Your task to perform on an android device: move an email to a new category in the gmail app Image 0: 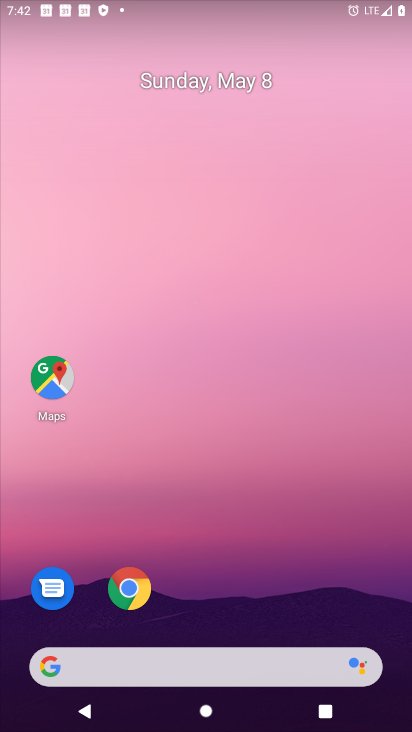
Step 0: drag from (201, 645) to (313, 229)
Your task to perform on an android device: move an email to a new category in the gmail app Image 1: 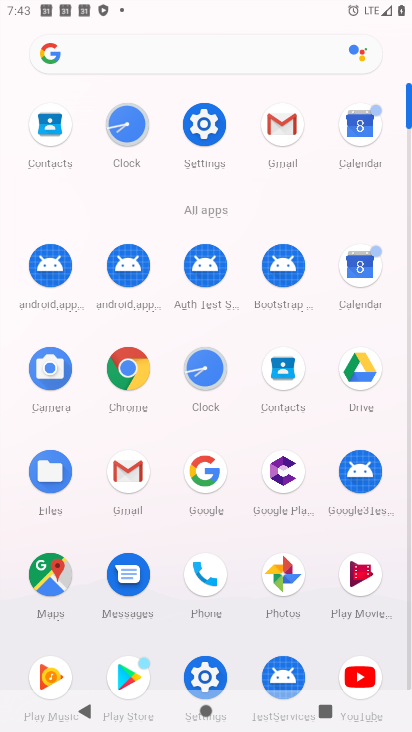
Step 1: click (288, 127)
Your task to perform on an android device: move an email to a new category in the gmail app Image 2: 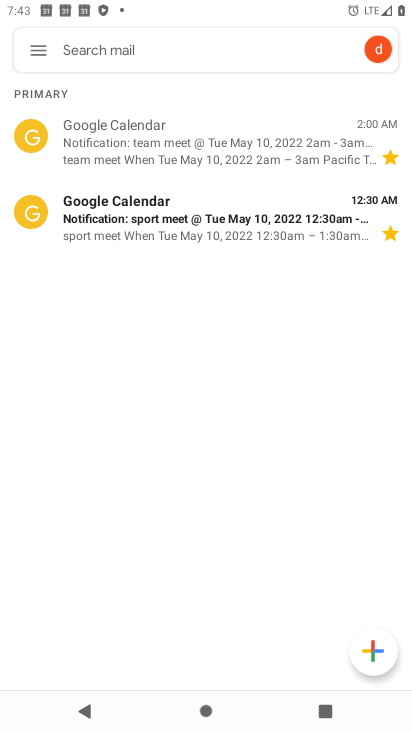
Step 2: click (39, 133)
Your task to perform on an android device: move an email to a new category in the gmail app Image 3: 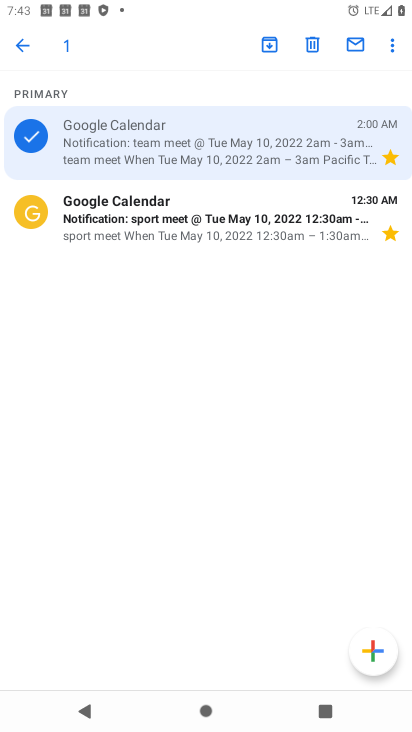
Step 3: click (395, 45)
Your task to perform on an android device: move an email to a new category in the gmail app Image 4: 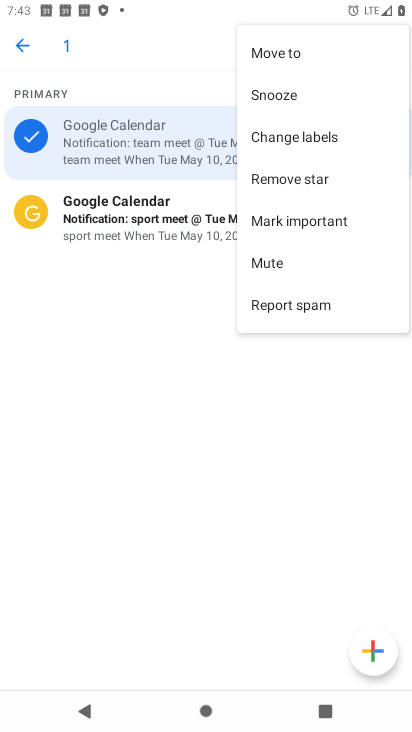
Step 4: click (288, 52)
Your task to perform on an android device: move an email to a new category in the gmail app Image 5: 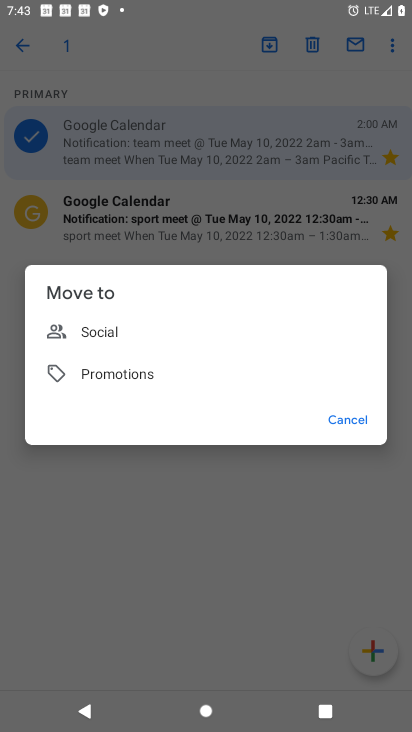
Step 5: click (103, 331)
Your task to perform on an android device: move an email to a new category in the gmail app Image 6: 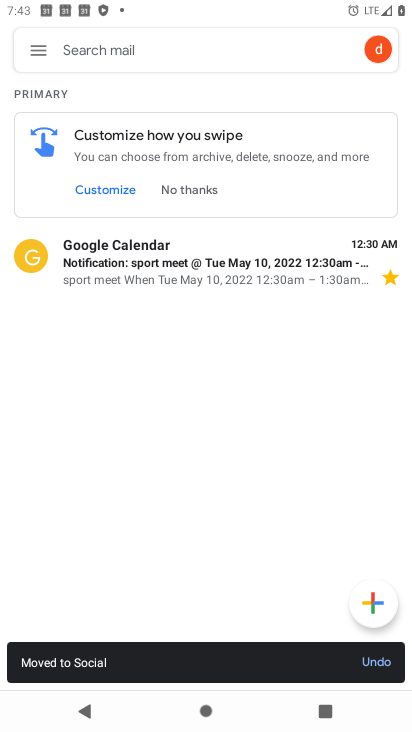
Step 6: task complete